Your task to perform on an android device: What is the news today? Image 0: 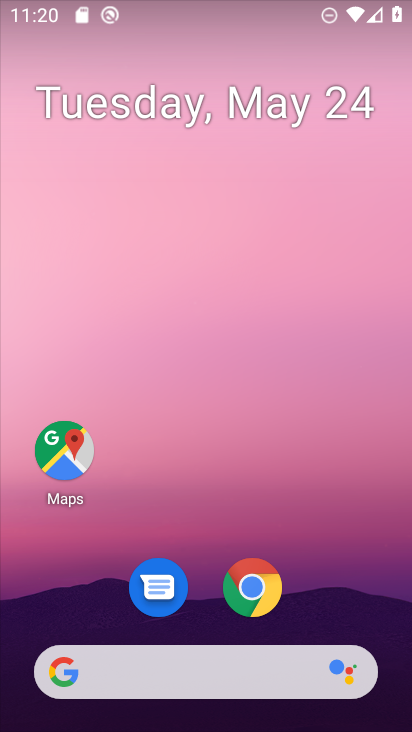
Step 0: click (247, 597)
Your task to perform on an android device: What is the news today? Image 1: 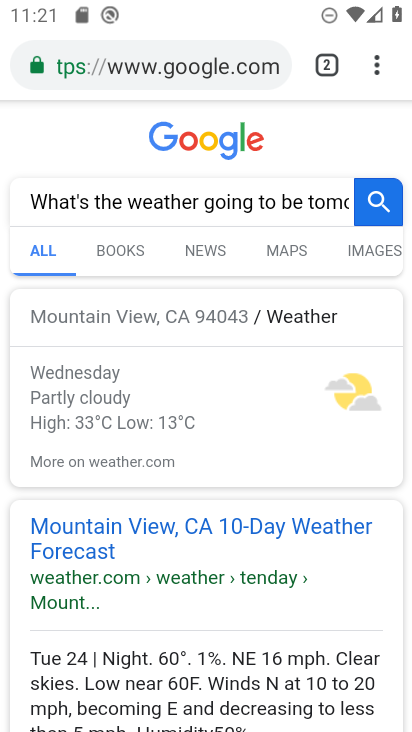
Step 1: click (191, 66)
Your task to perform on an android device: What is the news today? Image 2: 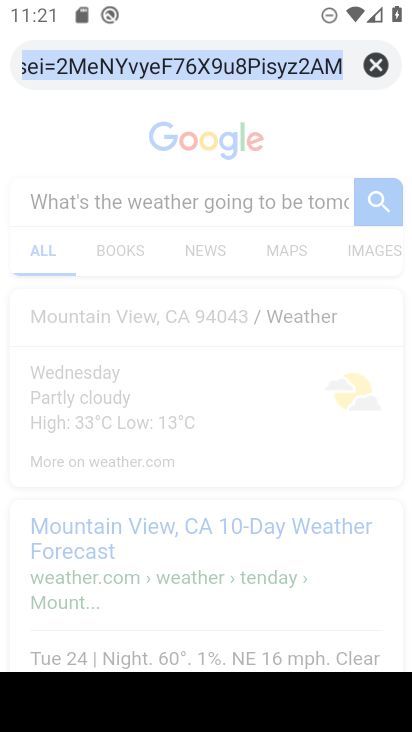
Step 2: click (375, 64)
Your task to perform on an android device: What is the news today? Image 3: 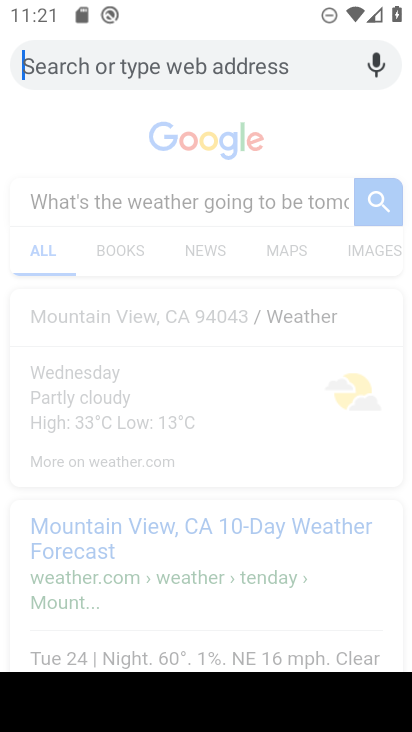
Step 3: type "What is the news today?"
Your task to perform on an android device: What is the news today? Image 4: 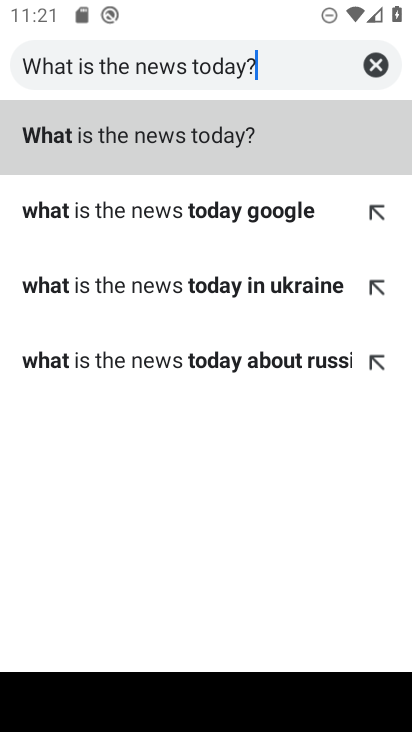
Step 4: click (101, 115)
Your task to perform on an android device: What is the news today? Image 5: 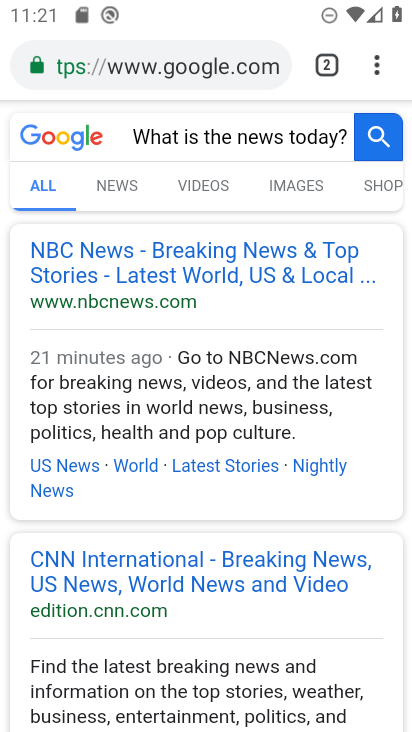
Step 5: task complete